Your task to perform on an android device: refresh tabs in the chrome app Image 0: 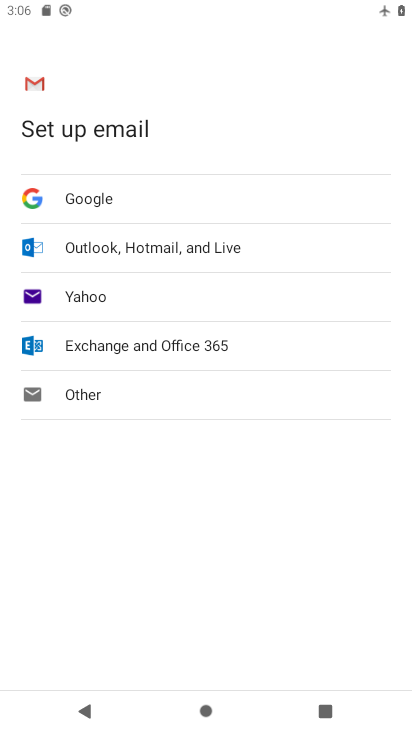
Step 0: press home button
Your task to perform on an android device: refresh tabs in the chrome app Image 1: 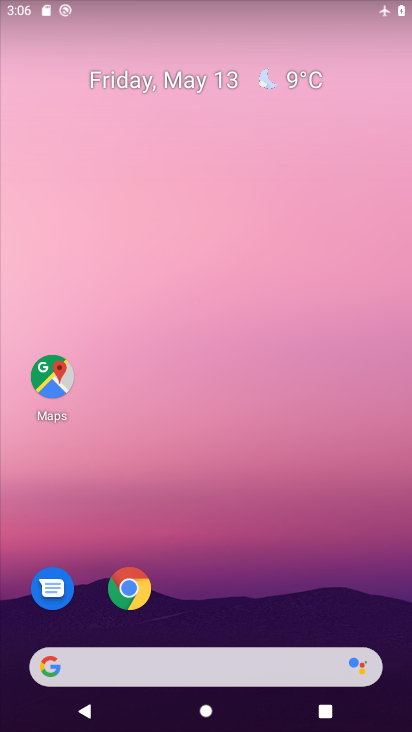
Step 1: click (118, 599)
Your task to perform on an android device: refresh tabs in the chrome app Image 2: 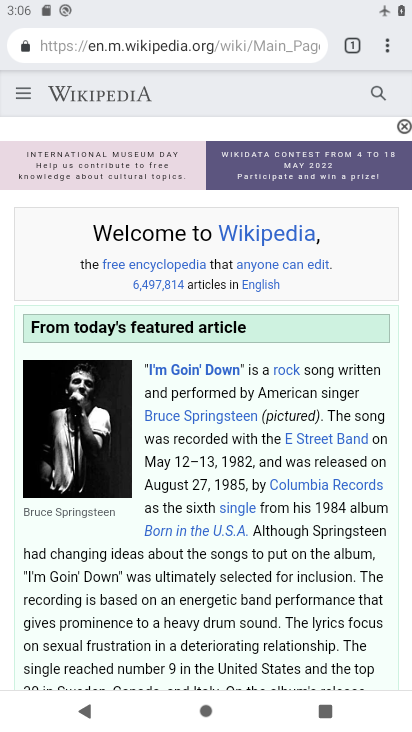
Step 2: click (392, 46)
Your task to perform on an android device: refresh tabs in the chrome app Image 3: 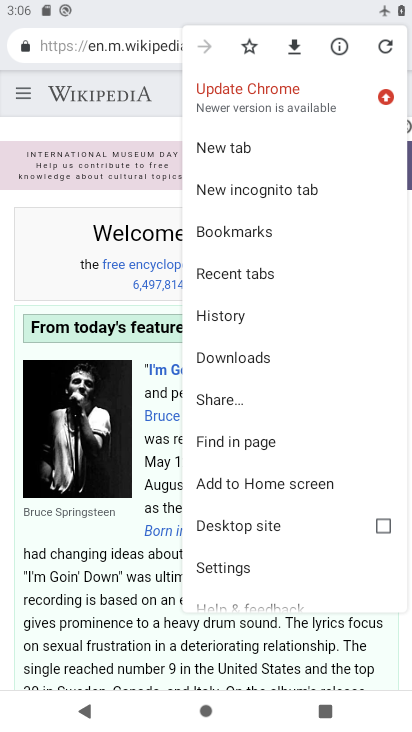
Step 3: click (386, 50)
Your task to perform on an android device: refresh tabs in the chrome app Image 4: 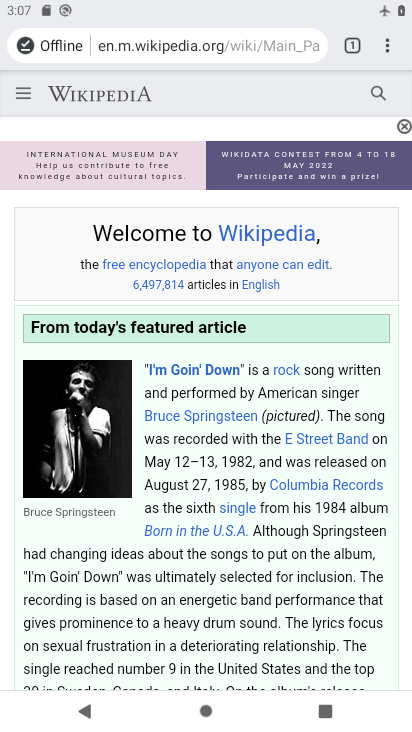
Step 4: task complete